Your task to perform on an android device: Check the news Image 0: 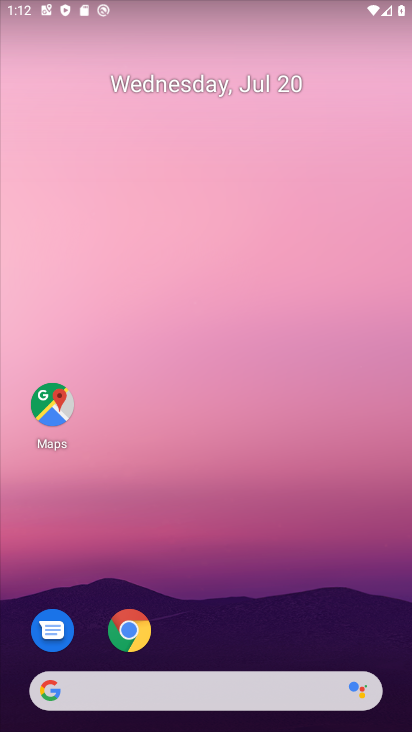
Step 0: click (169, 689)
Your task to perform on an android device: Check the news Image 1: 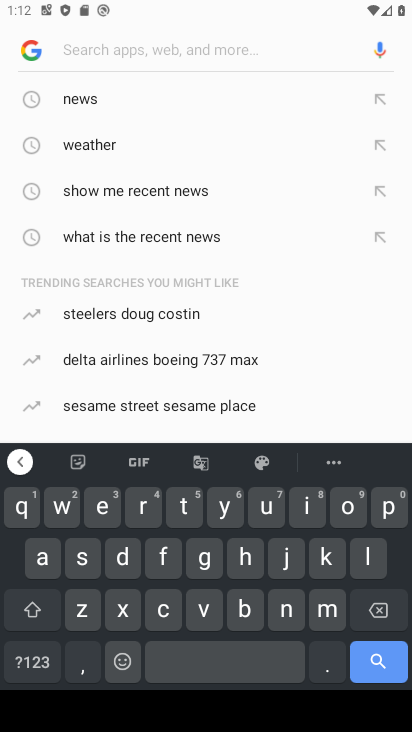
Step 1: click (86, 107)
Your task to perform on an android device: Check the news Image 2: 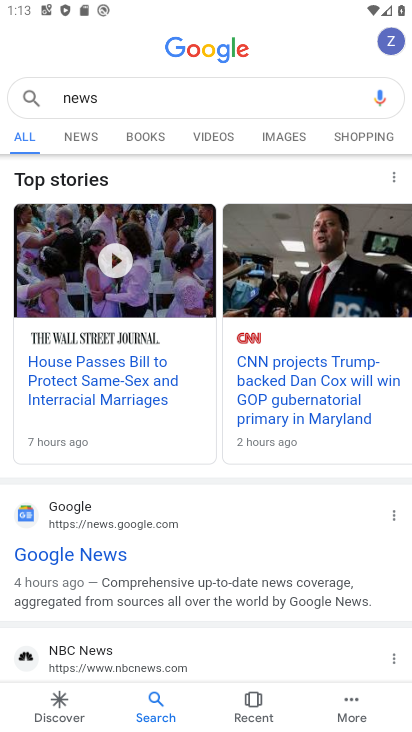
Step 2: task complete